Your task to perform on an android device: Open maps Image 0: 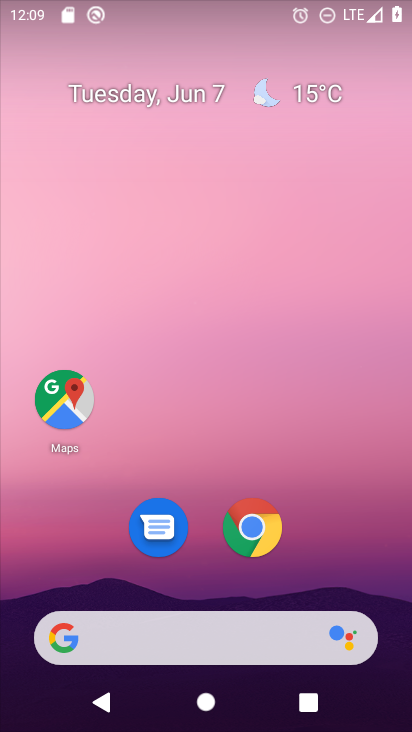
Step 0: drag from (348, 578) to (319, 147)
Your task to perform on an android device: Open maps Image 1: 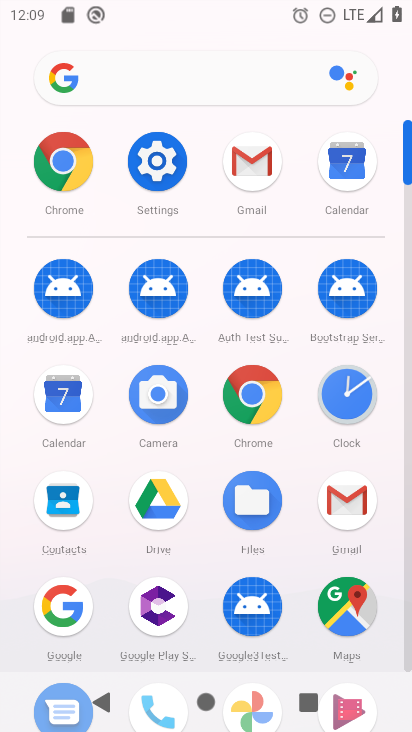
Step 1: click (328, 613)
Your task to perform on an android device: Open maps Image 2: 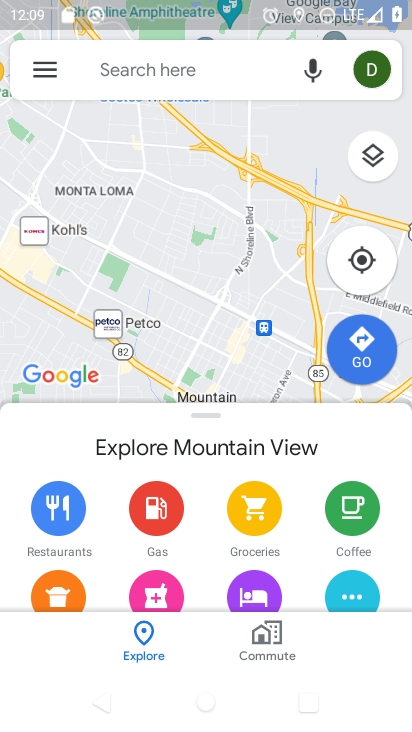
Step 2: task complete